Your task to perform on an android device: Open calendar and show me the first week of next month Image 0: 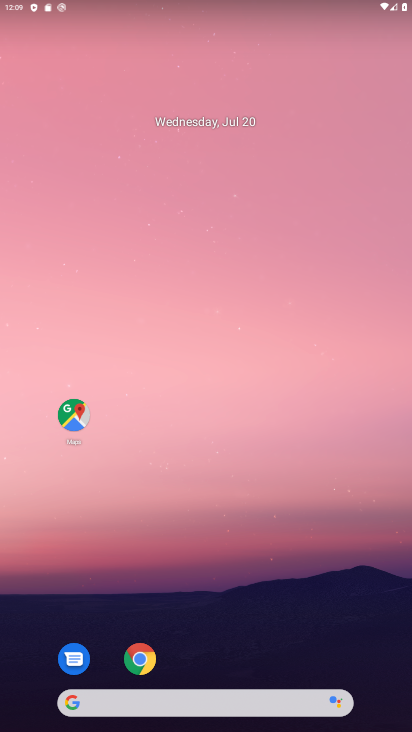
Step 0: drag from (386, 665) to (226, 8)
Your task to perform on an android device: Open calendar and show me the first week of next month Image 1: 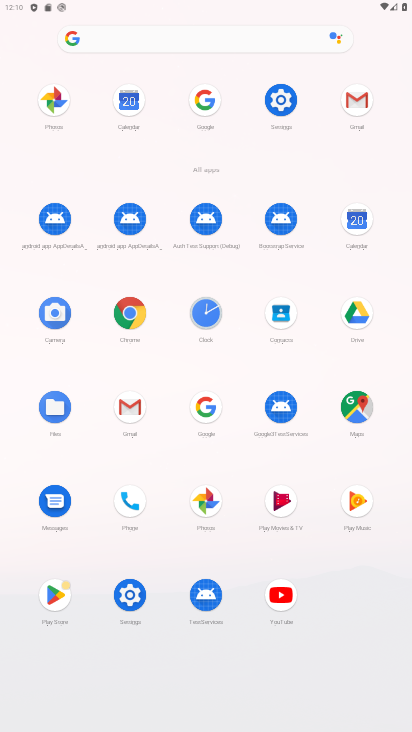
Step 1: click (367, 189)
Your task to perform on an android device: Open calendar and show me the first week of next month Image 2: 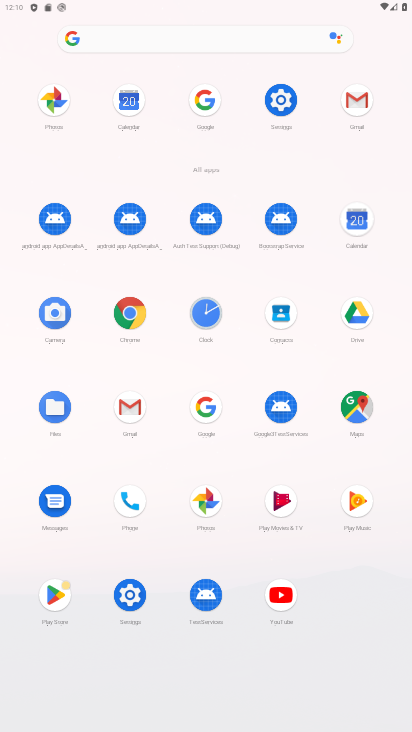
Step 2: click (365, 224)
Your task to perform on an android device: Open calendar and show me the first week of next month Image 3: 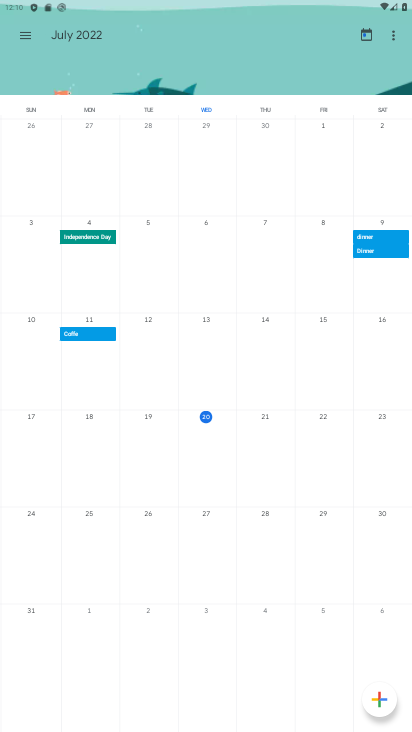
Step 3: drag from (350, 309) to (9, 377)
Your task to perform on an android device: Open calendar and show me the first week of next month Image 4: 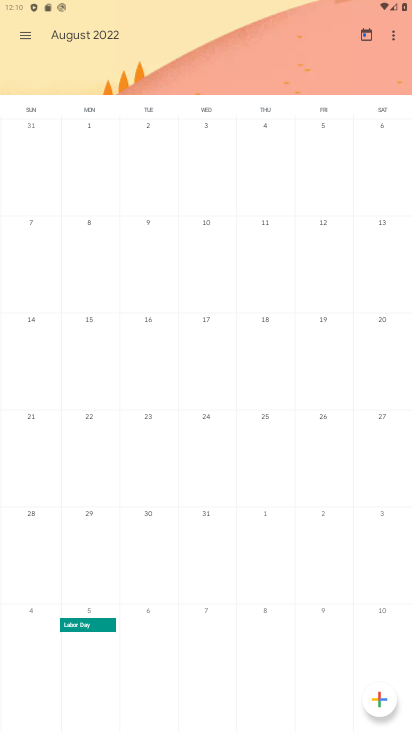
Step 4: click (35, 141)
Your task to perform on an android device: Open calendar and show me the first week of next month Image 5: 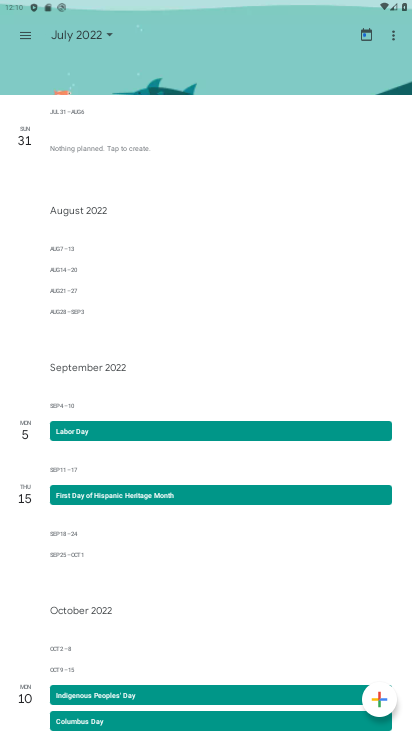
Step 5: task complete